Your task to perform on an android device: Go to Maps Image 0: 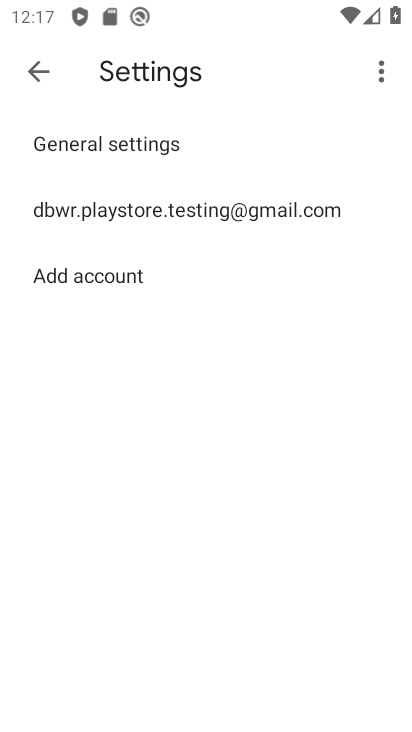
Step 0: press home button
Your task to perform on an android device: Go to Maps Image 1: 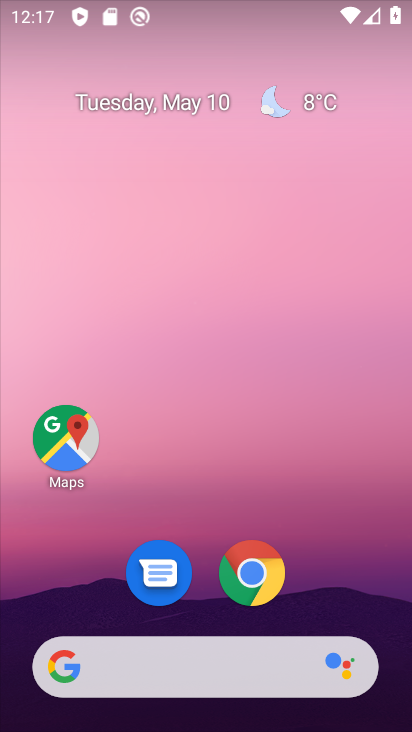
Step 1: click (72, 445)
Your task to perform on an android device: Go to Maps Image 2: 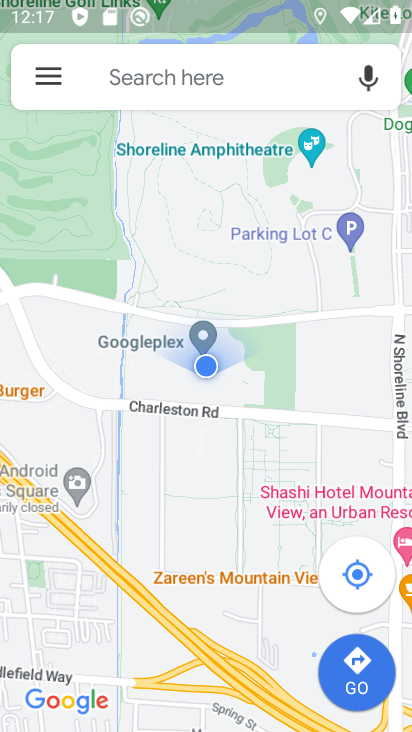
Step 2: task complete